Your task to perform on an android device: Open Chrome and go to settings Image 0: 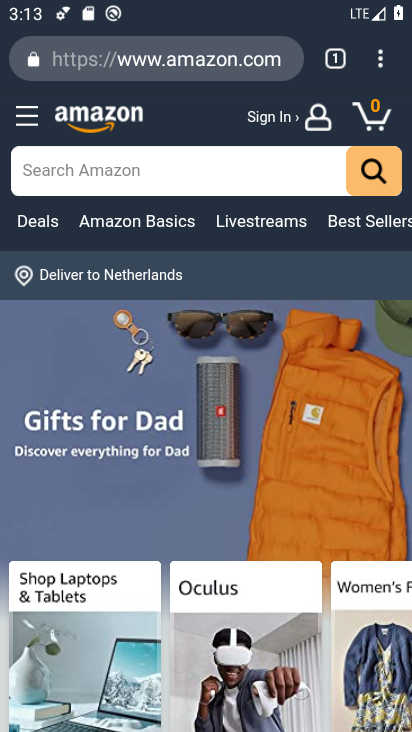
Step 0: press home button
Your task to perform on an android device: Open Chrome and go to settings Image 1: 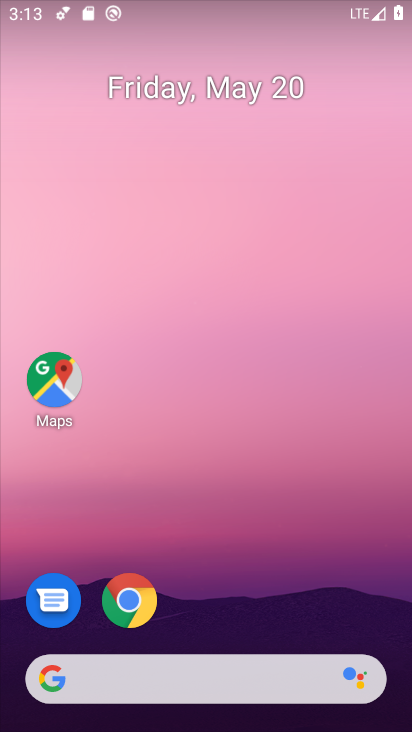
Step 1: drag from (352, 403) to (352, 215)
Your task to perform on an android device: Open Chrome and go to settings Image 2: 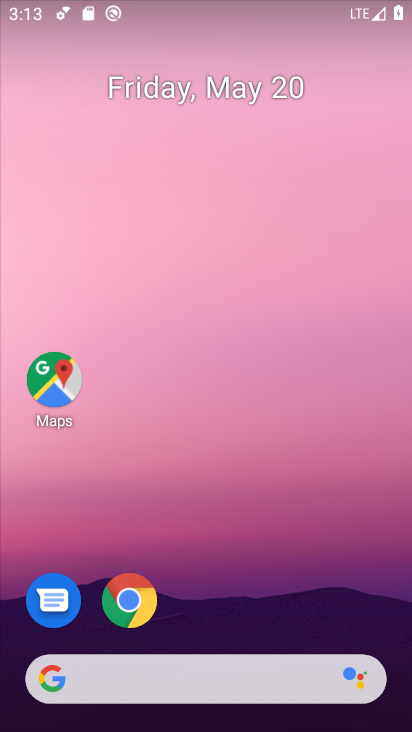
Step 2: drag from (370, 616) to (356, 241)
Your task to perform on an android device: Open Chrome and go to settings Image 3: 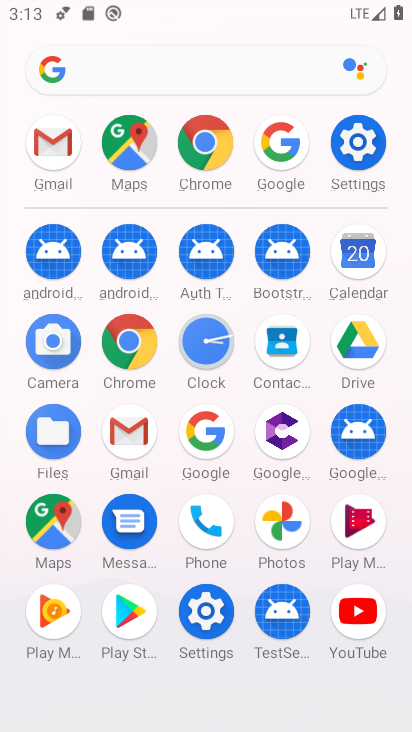
Step 3: click (141, 349)
Your task to perform on an android device: Open Chrome and go to settings Image 4: 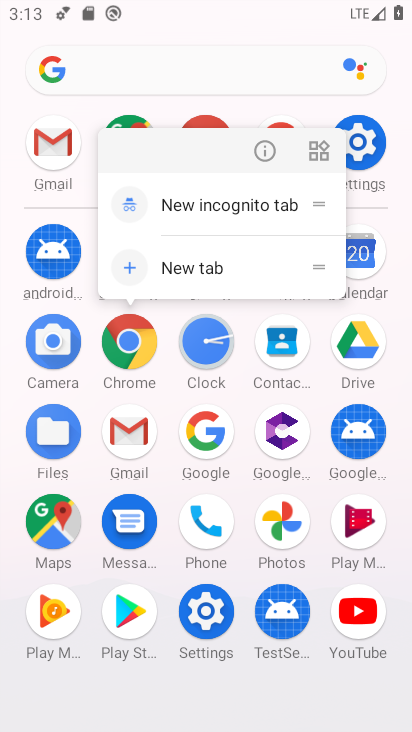
Step 4: click (141, 349)
Your task to perform on an android device: Open Chrome and go to settings Image 5: 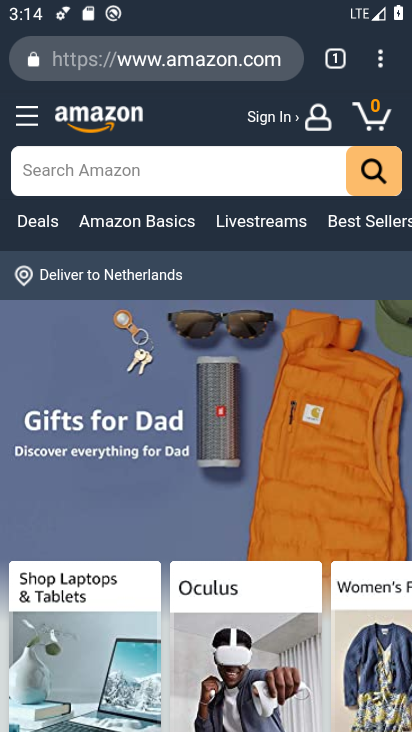
Step 5: press home button
Your task to perform on an android device: Open Chrome and go to settings Image 6: 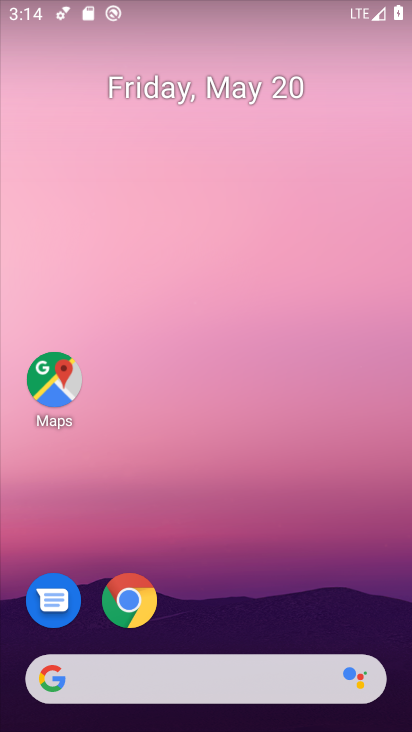
Step 6: drag from (345, 605) to (335, 174)
Your task to perform on an android device: Open Chrome and go to settings Image 7: 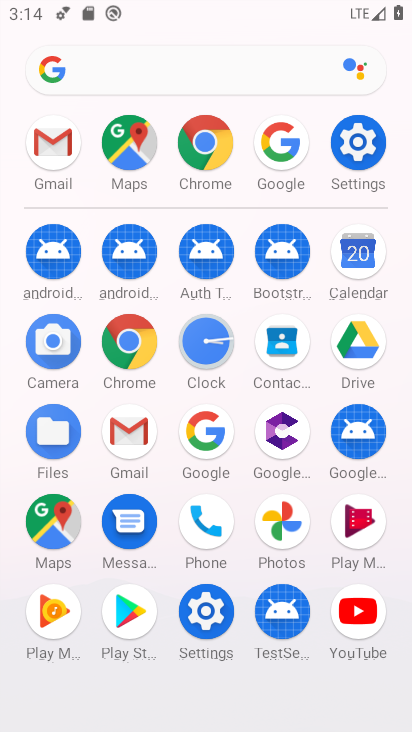
Step 7: click (132, 336)
Your task to perform on an android device: Open Chrome and go to settings Image 8: 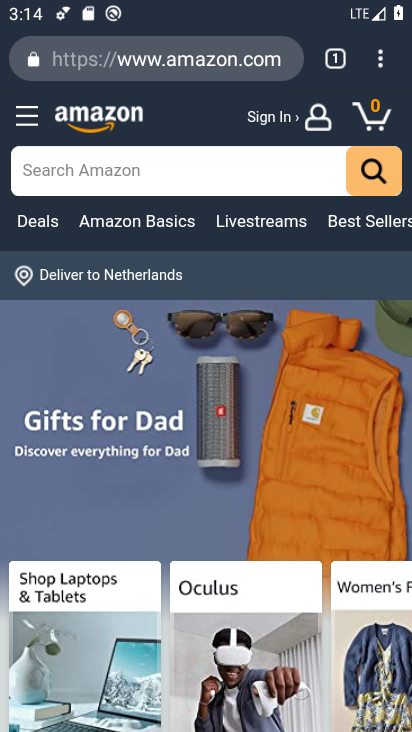
Step 8: click (381, 64)
Your task to perform on an android device: Open Chrome and go to settings Image 9: 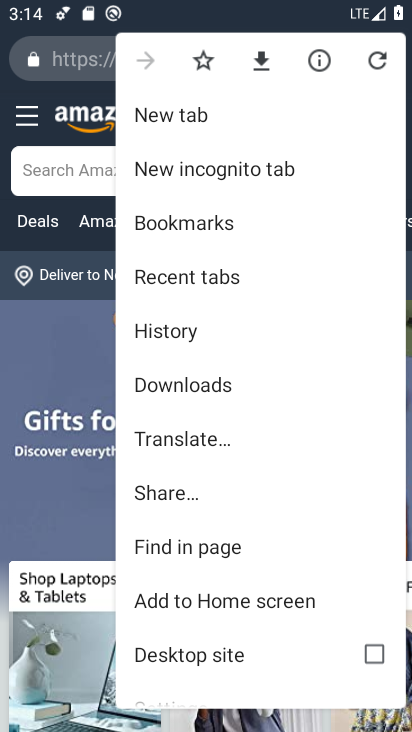
Step 9: drag from (327, 512) to (327, 339)
Your task to perform on an android device: Open Chrome and go to settings Image 10: 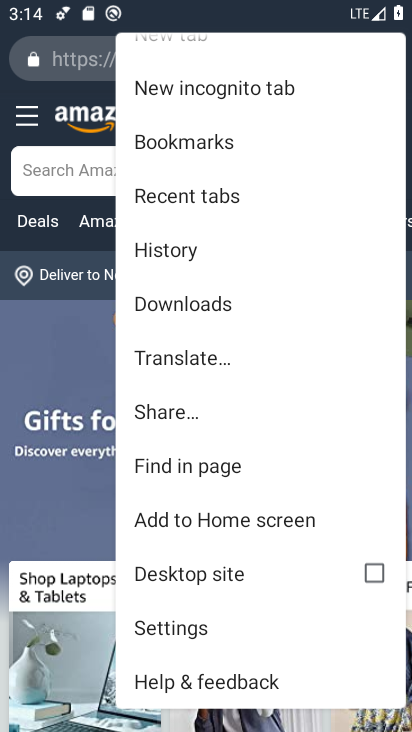
Step 10: drag from (292, 608) to (292, 446)
Your task to perform on an android device: Open Chrome and go to settings Image 11: 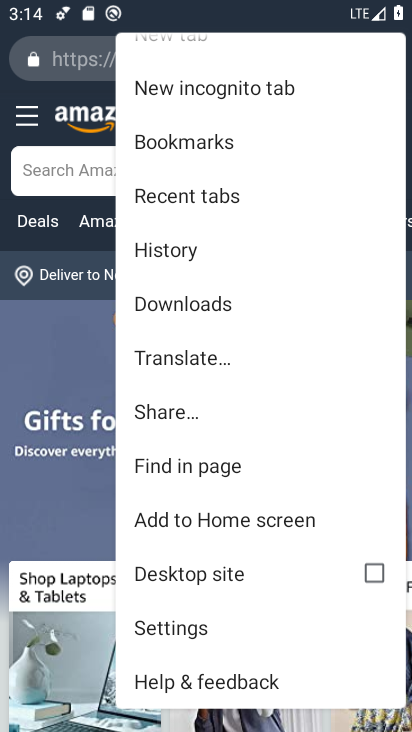
Step 11: click (206, 640)
Your task to perform on an android device: Open Chrome and go to settings Image 12: 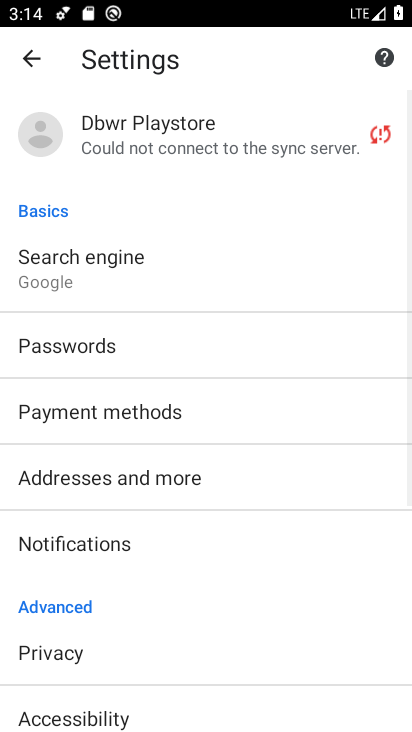
Step 12: drag from (283, 599) to (293, 458)
Your task to perform on an android device: Open Chrome and go to settings Image 13: 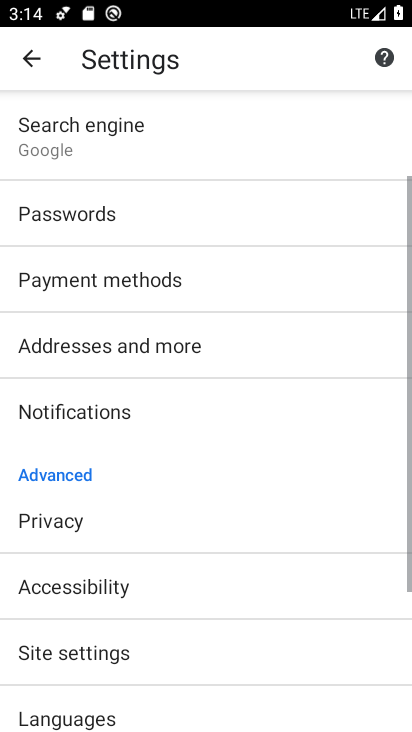
Step 13: drag from (286, 643) to (293, 467)
Your task to perform on an android device: Open Chrome and go to settings Image 14: 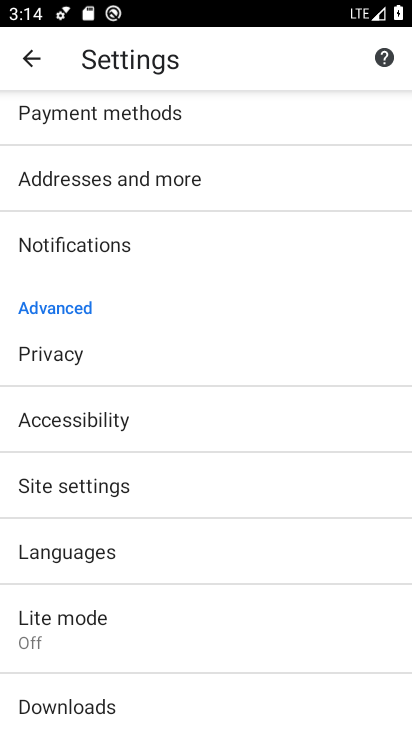
Step 14: drag from (290, 650) to (288, 492)
Your task to perform on an android device: Open Chrome and go to settings Image 15: 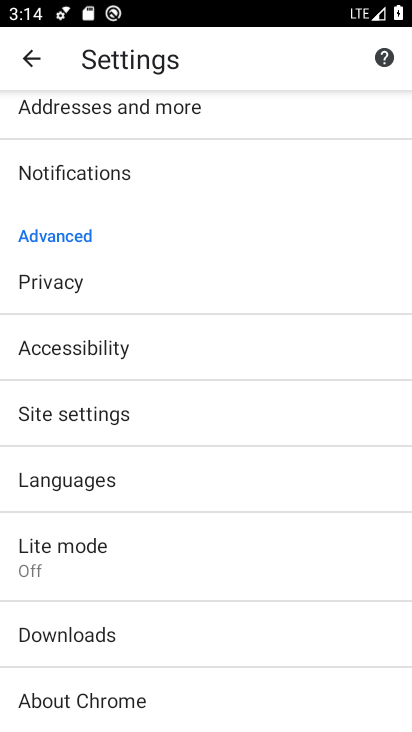
Step 15: drag from (273, 670) to (272, 470)
Your task to perform on an android device: Open Chrome and go to settings Image 16: 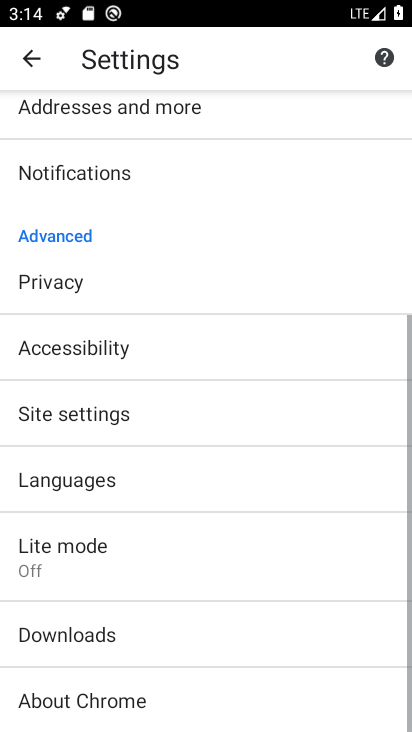
Step 16: drag from (285, 409) to (278, 607)
Your task to perform on an android device: Open Chrome and go to settings Image 17: 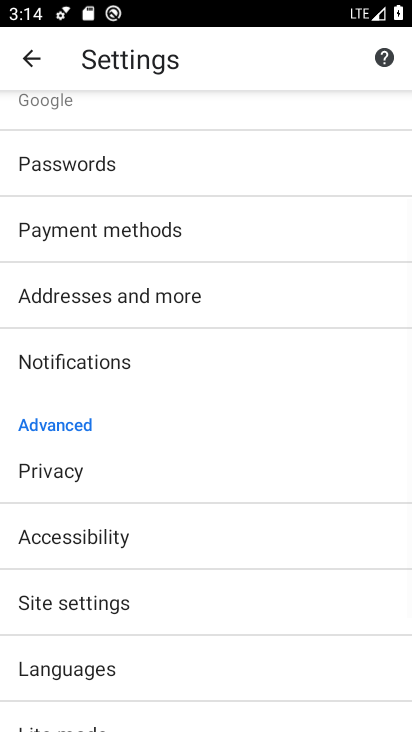
Step 17: drag from (286, 387) to (273, 564)
Your task to perform on an android device: Open Chrome and go to settings Image 18: 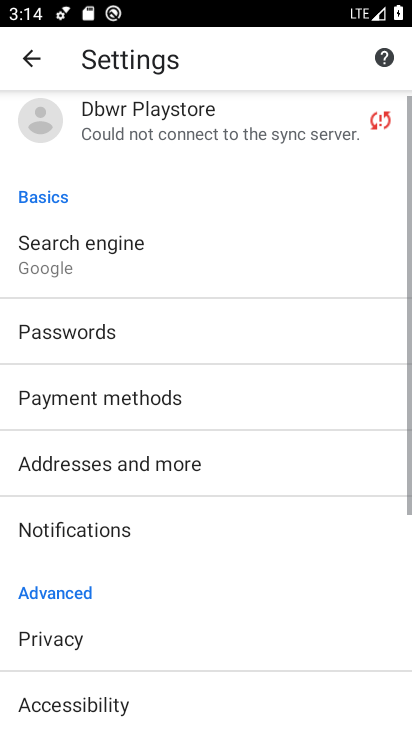
Step 18: click (270, 511)
Your task to perform on an android device: Open Chrome and go to settings Image 19: 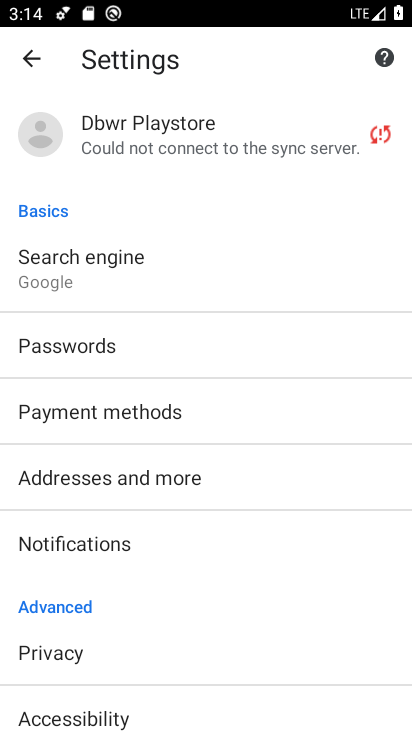
Step 19: task complete